Your task to perform on an android device: Open Google Chrome Image 0: 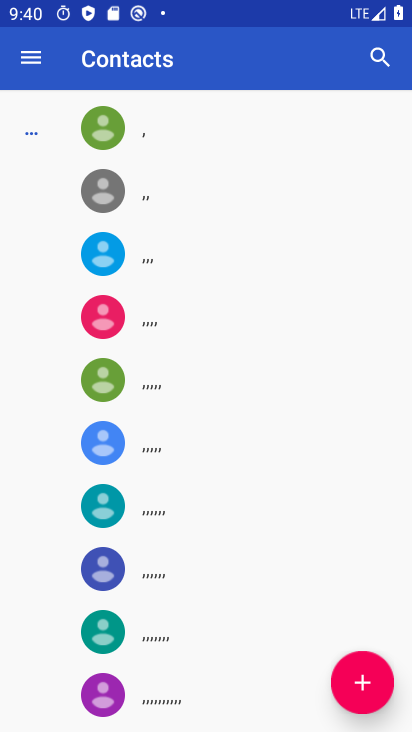
Step 0: press home button
Your task to perform on an android device: Open Google Chrome Image 1: 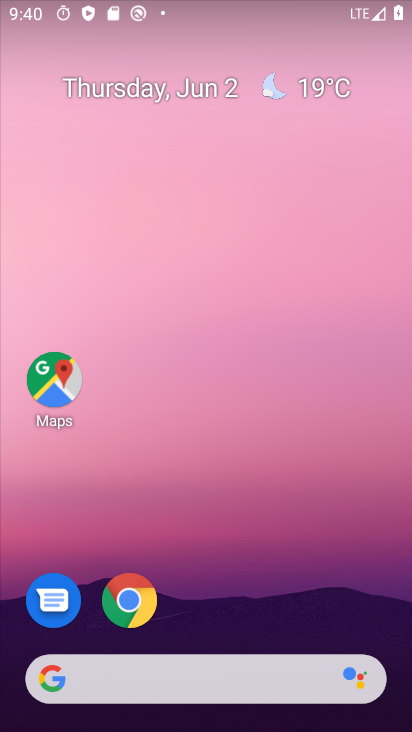
Step 1: click (136, 620)
Your task to perform on an android device: Open Google Chrome Image 2: 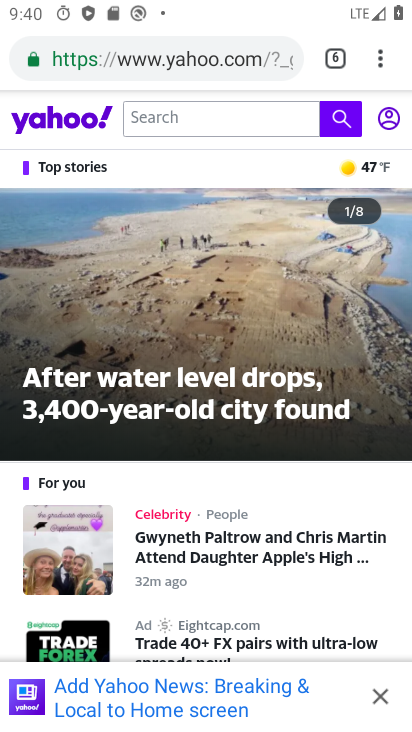
Step 2: task complete